Your task to perform on an android device: Go to internet settings Image 0: 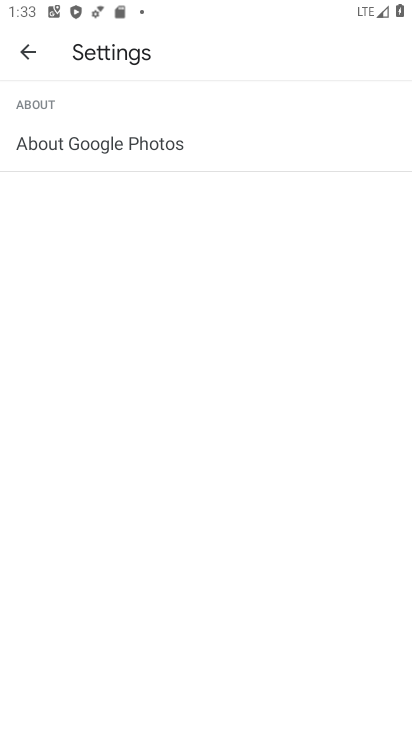
Step 0: press home button
Your task to perform on an android device: Go to internet settings Image 1: 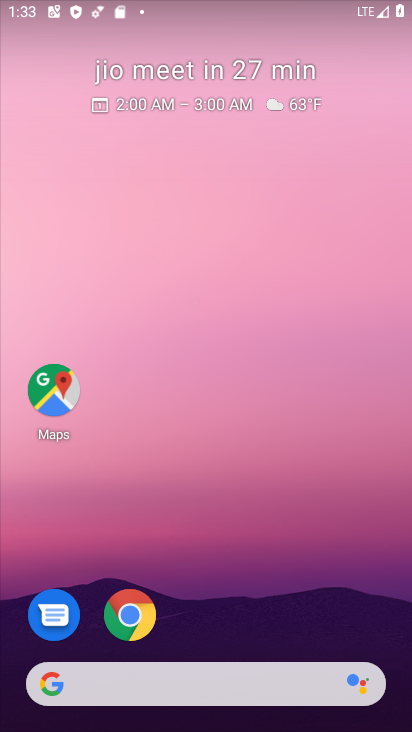
Step 1: drag from (172, 650) to (287, 153)
Your task to perform on an android device: Go to internet settings Image 2: 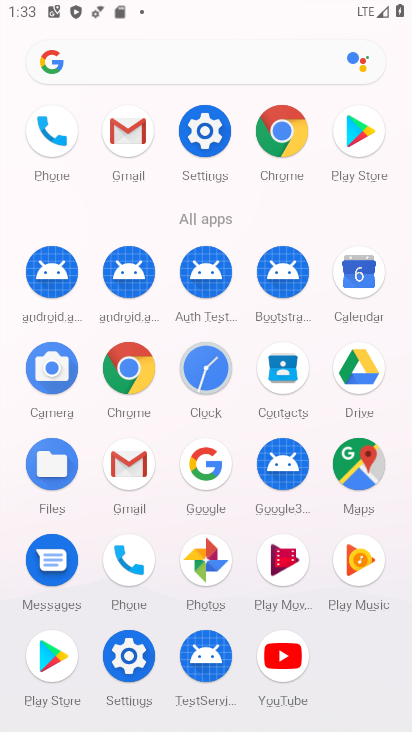
Step 2: click (145, 649)
Your task to perform on an android device: Go to internet settings Image 3: 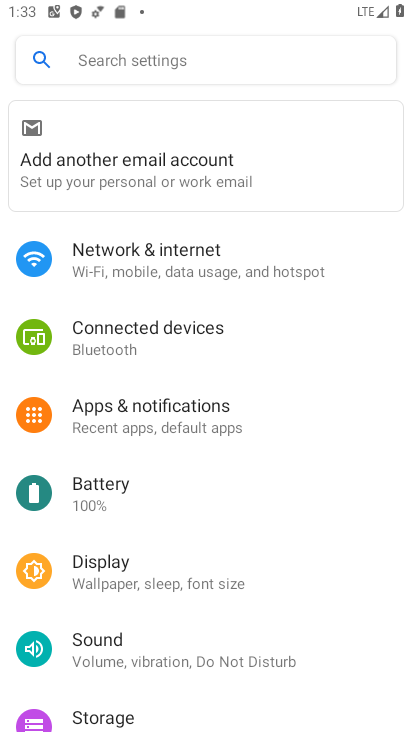
Step 3: click (246, 275)
Your task to perform on an android device: Go to internet settings Image 4: 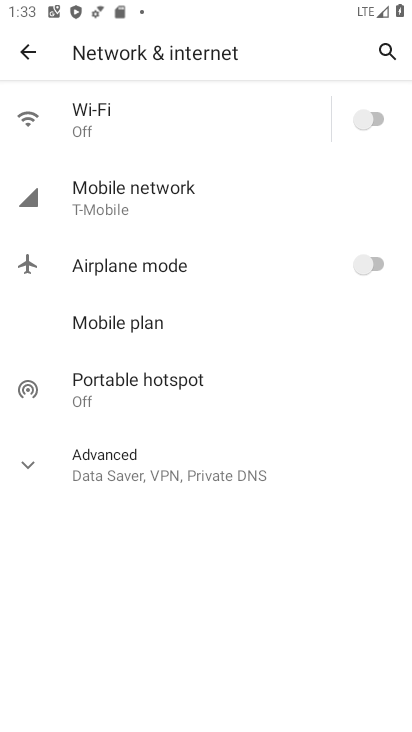
Step 4: click (214, 193)
Your task to perform on an android device: Go to internet settings Image 5: 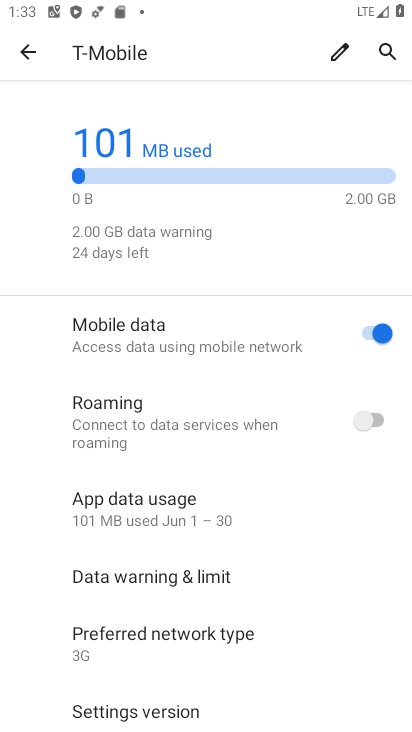
Step 5: task complete